Your task to perform on an android device: Open the phone app and click the voicemail tab. Image 0: 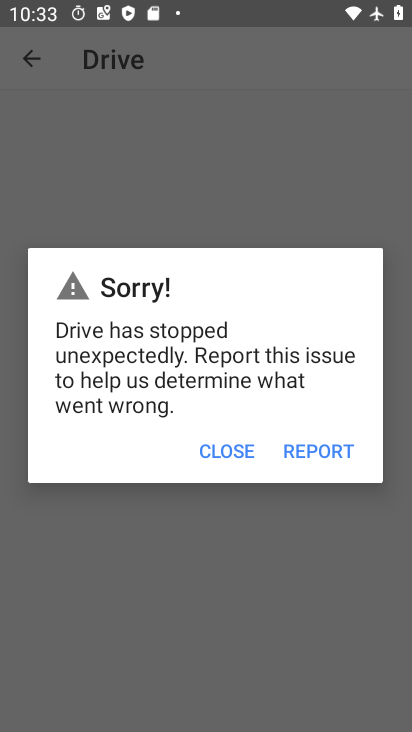
Step 0: press back button
Your task to perform on an android device: Open the phone app and click the voicemail tab. Image 1: 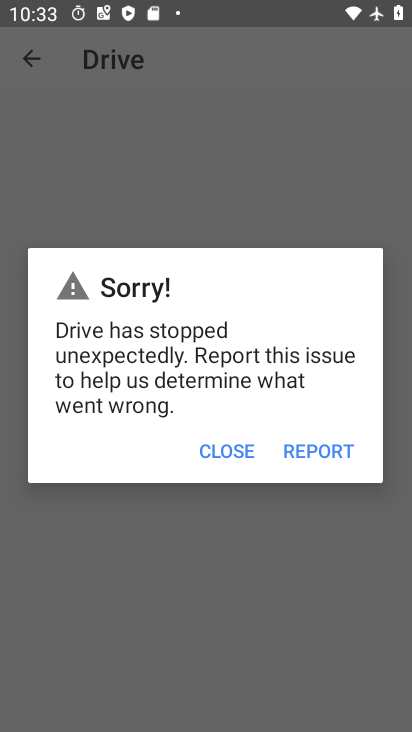
Step 1: press home button
Your task to perform on an android device: Open the phone app and click the voicemail tab. Image 2: 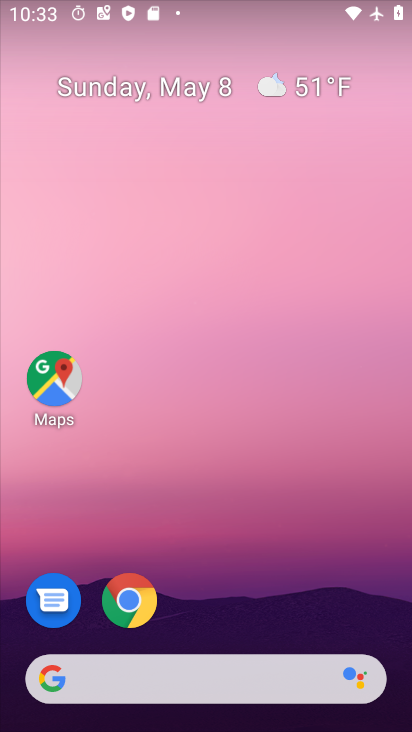
Step 2: drag from (249, 563) to (227, 24)
Your task to perform on an android device: Open the phone app and click the voicemail tab. Image 3: 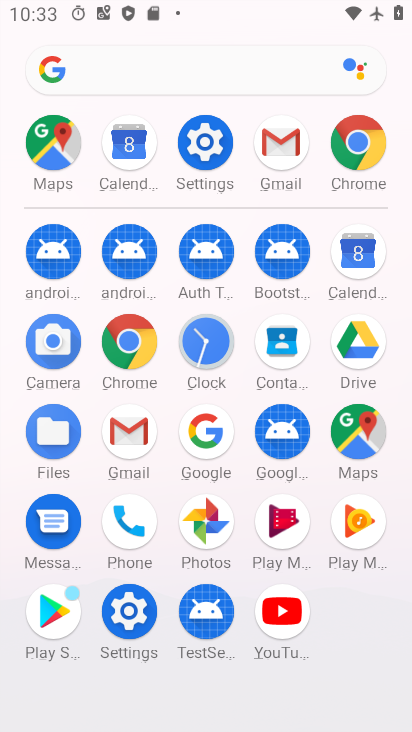
Step 3: click (128, 519)
Your task to perform on an android device: Open the phone app and click the voicemail tab. Image 4: 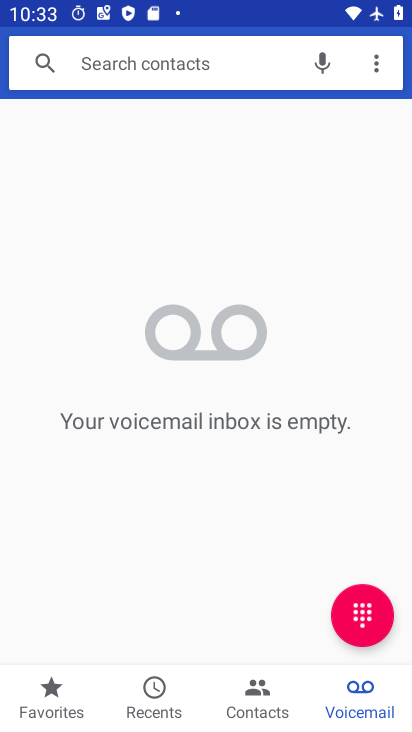
Step 4: task complete